Your task to perform on an android device: turn off airplane mode Image 0: 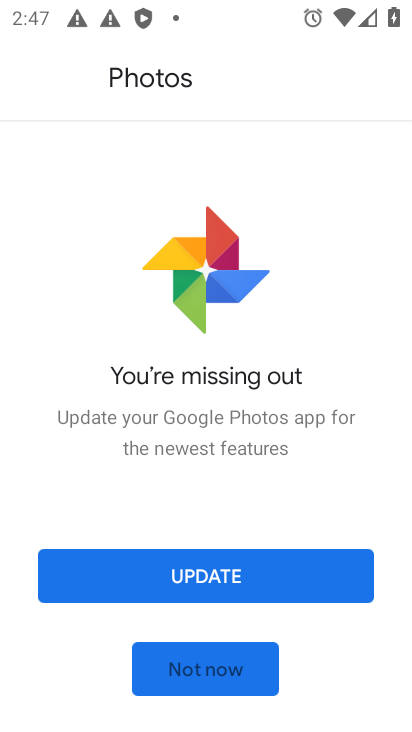
Step 0: press home button
Your task to perform on an android device: turn off airplane mode Image 1: 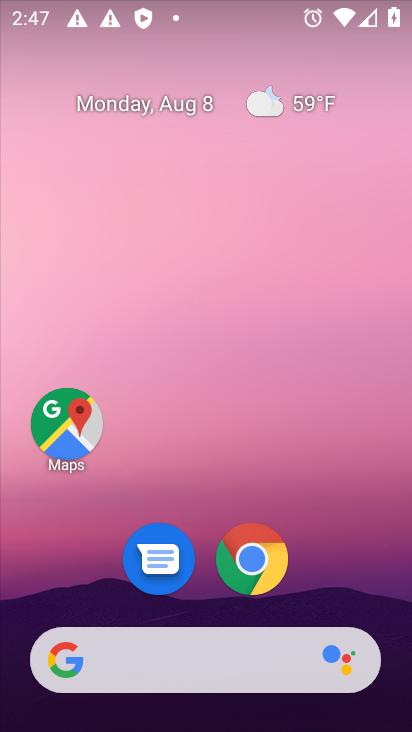
Step 1: drag from (160, 668) to (222, 252)
Your task to perform on an android device: turn off airplane mode Image 2: 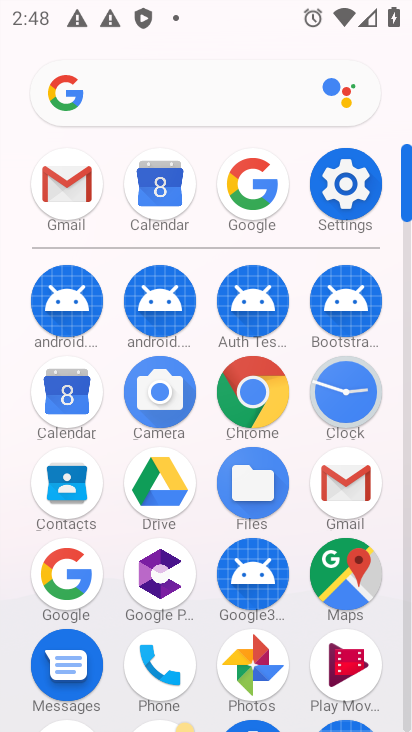
Step 2: click (347, 184)
Your task to perform on an android device: turn off airplane mode Image 3: 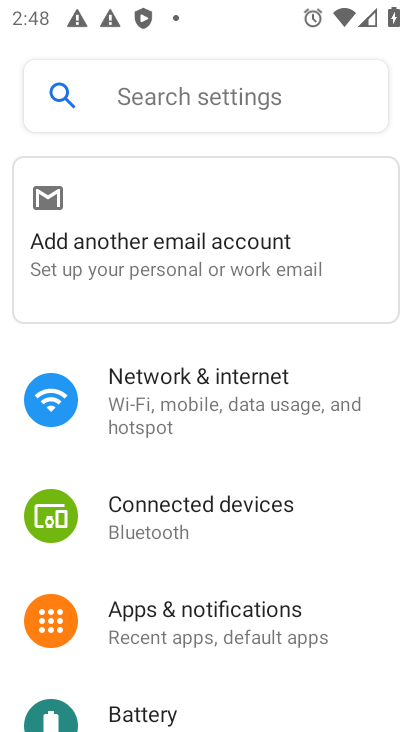
Step 3: click (197, 395)
Your task to perform on an android device: turn off airplane mode Image 4: 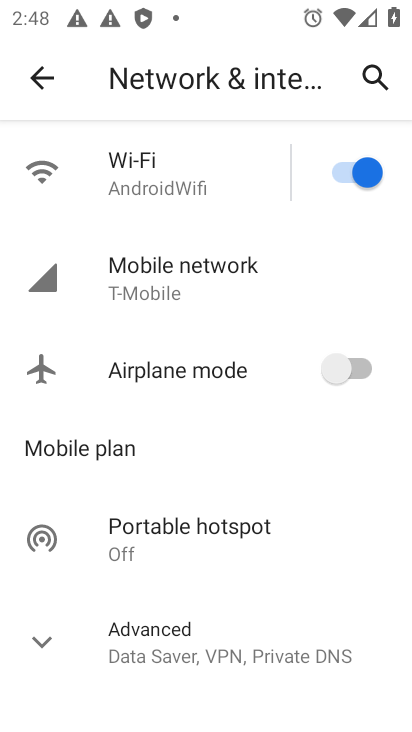
Step 4: task complete